Your task to perform on an android device: turn on airplane mode Image 0: 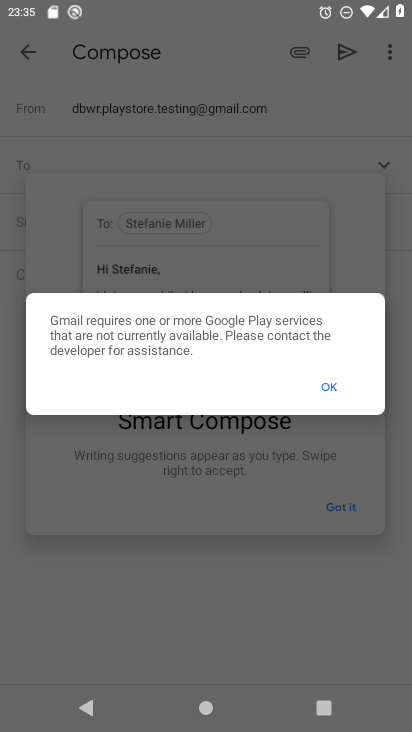
Step 0: press home button
Your task to perform on an android device: turn on airplane mode Image 1: 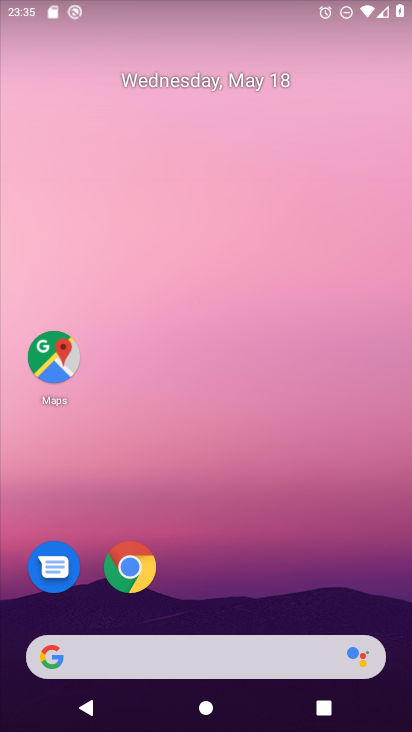
Step 1: drag from (271, 673) to (246, 169)
Your task to perform on an android device: turn on airplane mode Image 2: 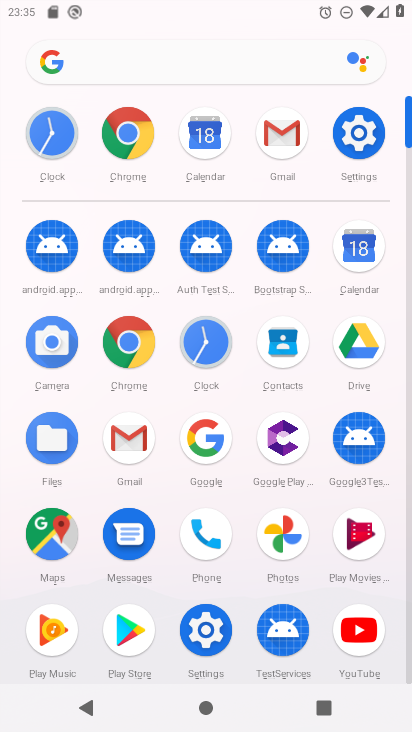
Step 2: click (364, 150)
Your task to perform on an android device: turn on airplane mode Image 3: 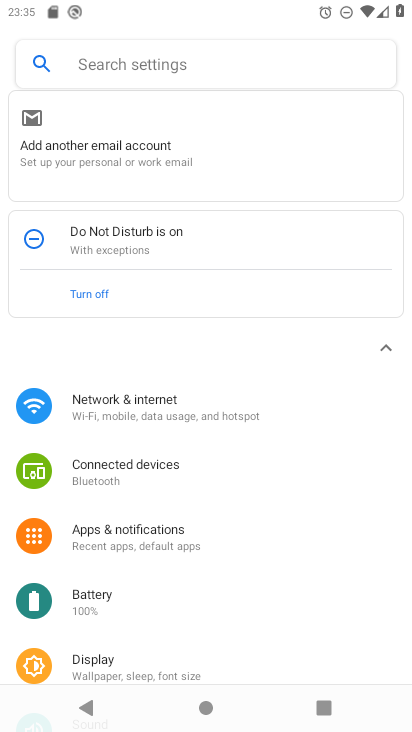
Step 3: click (185, 387)
Your task to perform on an android device: turn on airplane mode Image 4: 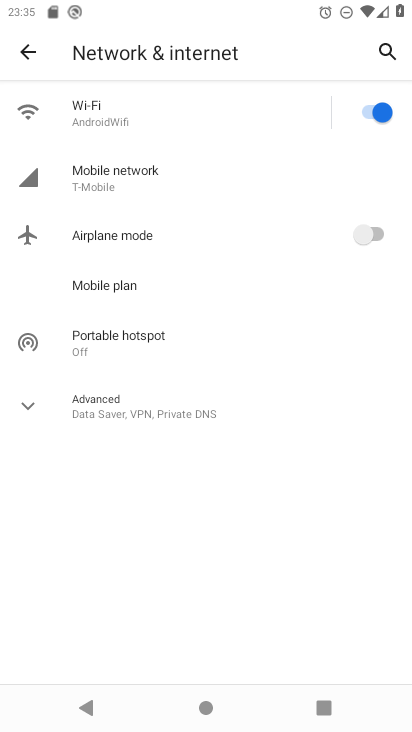
Step 4: click (342, 224)
Your task to perform on an android device: turn on airplane mode Image 5: 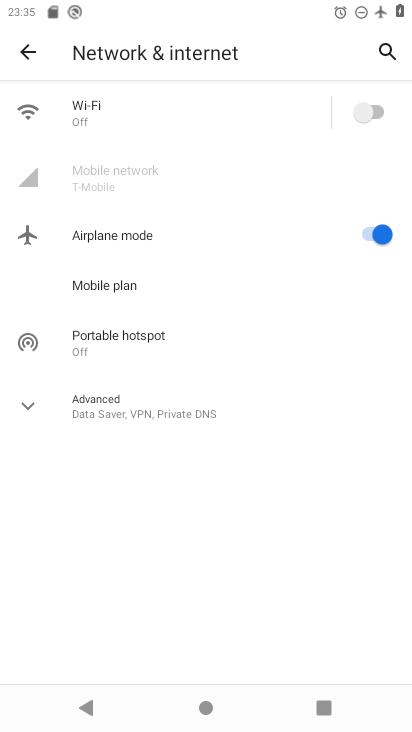
Step 5: task complete